Your task to perform on an android device: uninstall "ZOOM Cloud Meetings" Image 0: 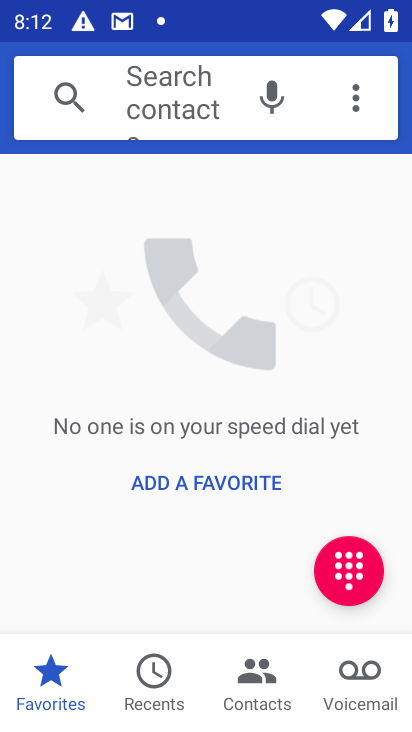
Step 0: press home button
Your task to perform on an android device: uninstall "ZOOM Cloud Meetings" Image 1: 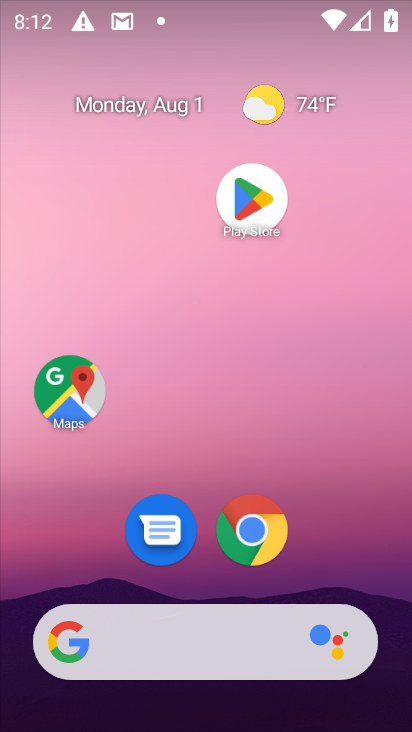
Step 1: click (242, 207)
Your task to perform on an android device: uninstall "ZOOM Cloud Meetings" Image 2: 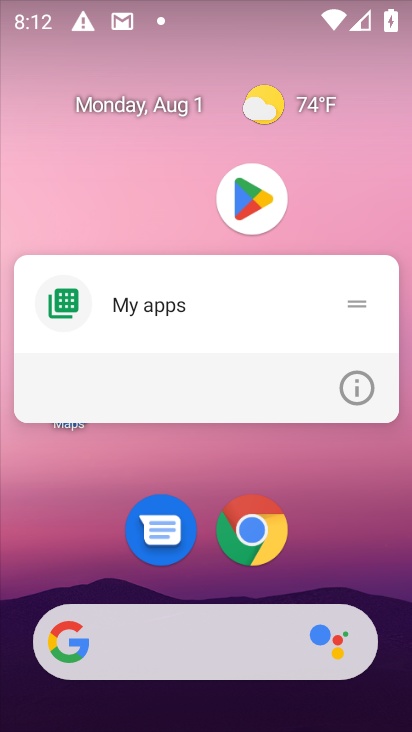
Step 2: click (242, 207)
Your task to perform on an android device: uninstall "ZOOM Cloud Meetings" Image 3: 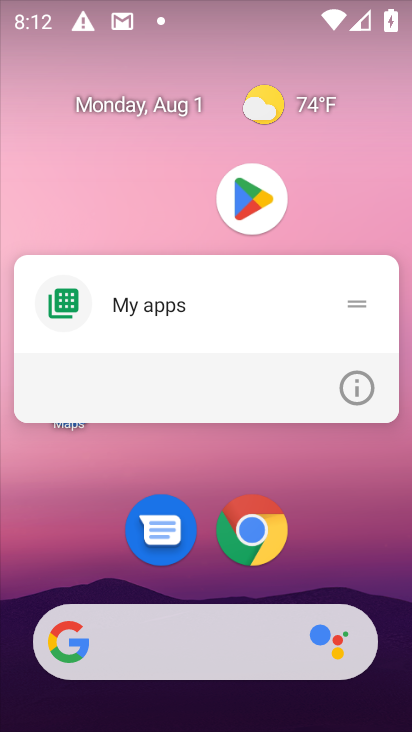
Step 3: click (242, 207)
Your task to perform on an android device: uninstall "ZOOM Cloud Meetings" Image 4: 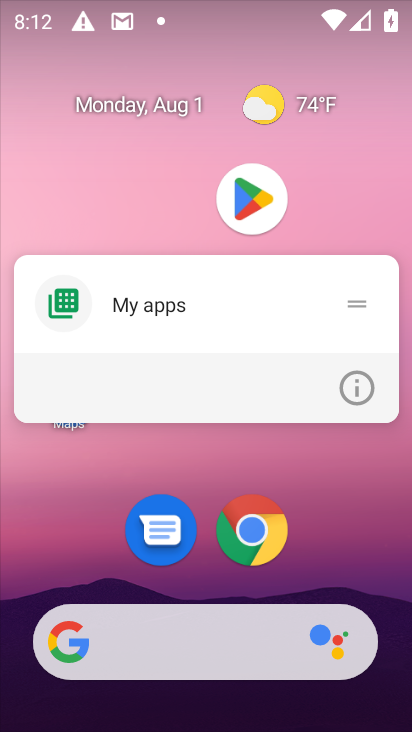
Step 4: click (248, 197)
Your task to perform on an android device: uninstall "ZOOM Cloud Meetings" Image 5: 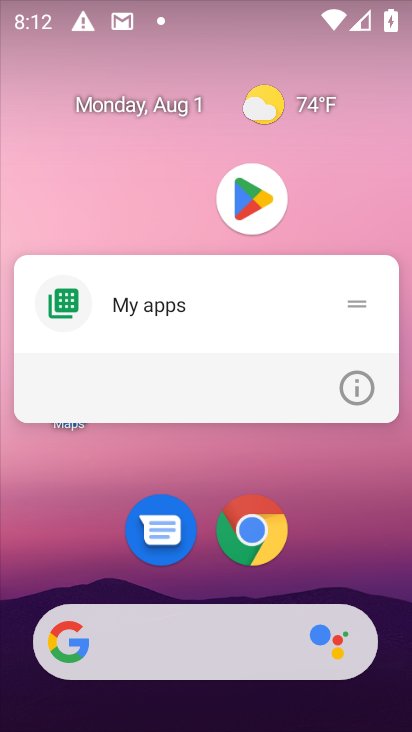
Step 5: click (248, 197)
Your task to perform on an android device: uninstall "ZOOM Cloud Meetings" Image 6: 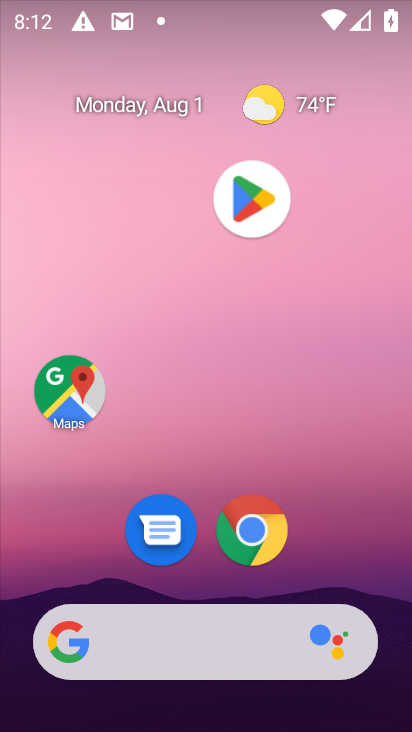
Step 6: click (250, 180)
Your task to perform on an android device: uninstall "ZOOM Cloud Meetings" Image 7: 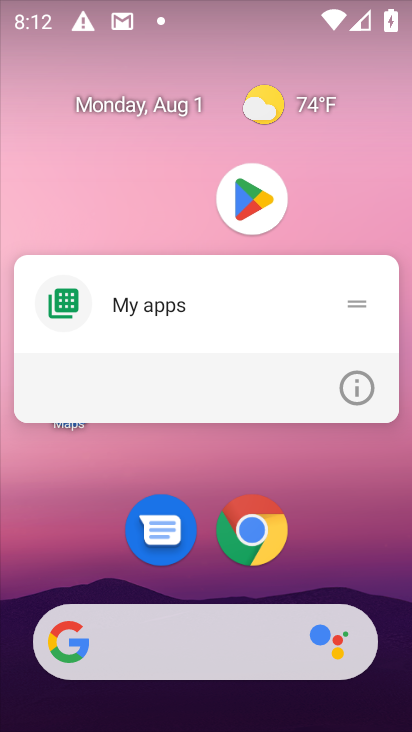
Step 7: click (236, 159)
Your task to perform on an android device: uninstall "ZOOM Cloud Meetings" Image 8: 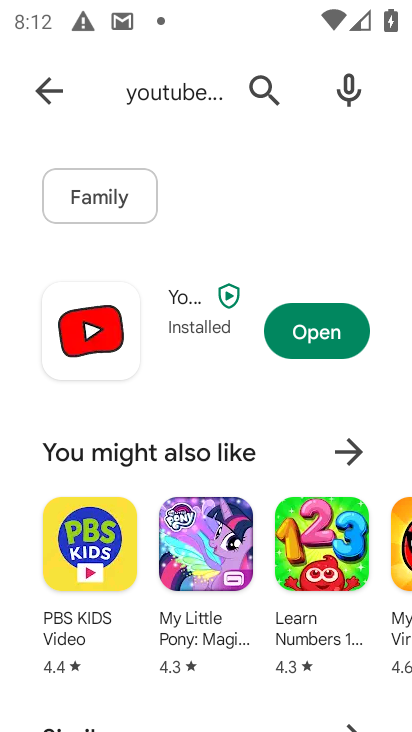
Step 8: click (266, 102)
Your task to perform on an android device: uninstall "ZOOM Cloud Meetings" Image 9: 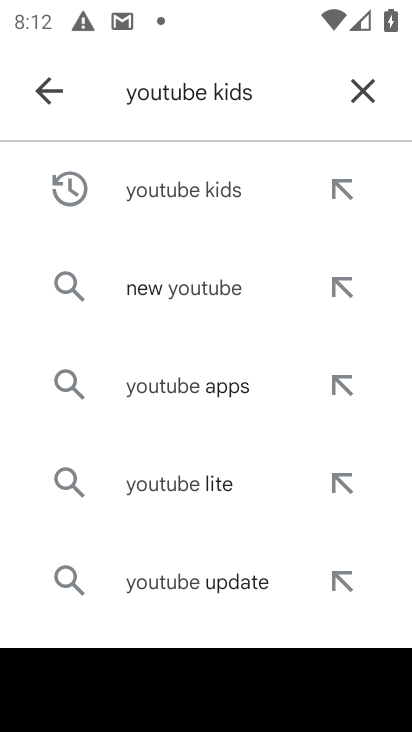
Step 9: click (365, 95)
Your task to perform on an android device: uninstall "ZOOM Cloud Meetings" Image 10: 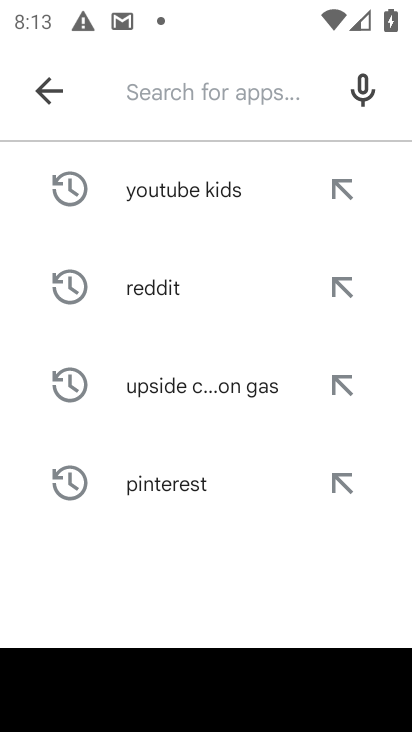
Step 10: type "zoom cloud meetings "
Your task to perform on an android device: uninstall "ZOOM Cloud Meetings" Image 11: 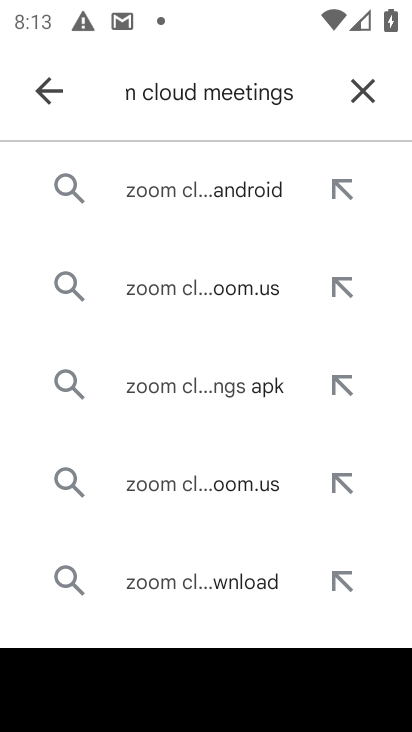
Step 11: type ""
Your task to perform on an android device: uninstall "ZOOM Cloud Meetings" Image 12: 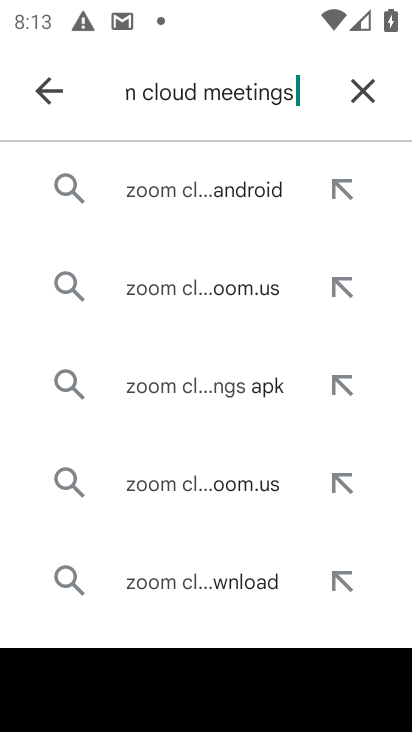
Step 12: type ""
Your task to perform on an android device: uninstall "ZOOM Cloud Meetings" Image 13: 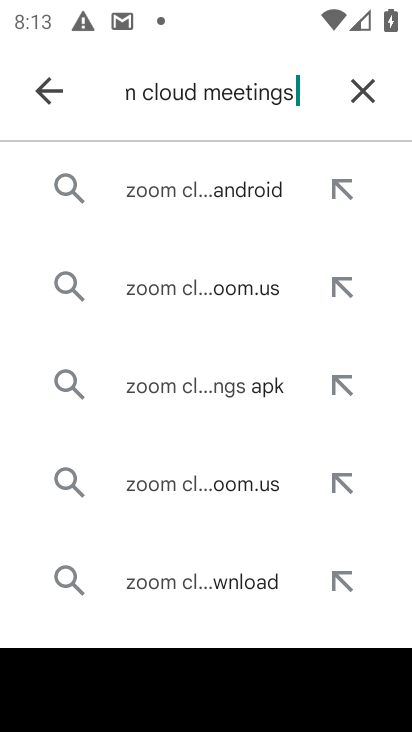
Step 13: press enter
Your task to perform on an android device: uninstall "ZOOM Cloud Meetings" Image 14: 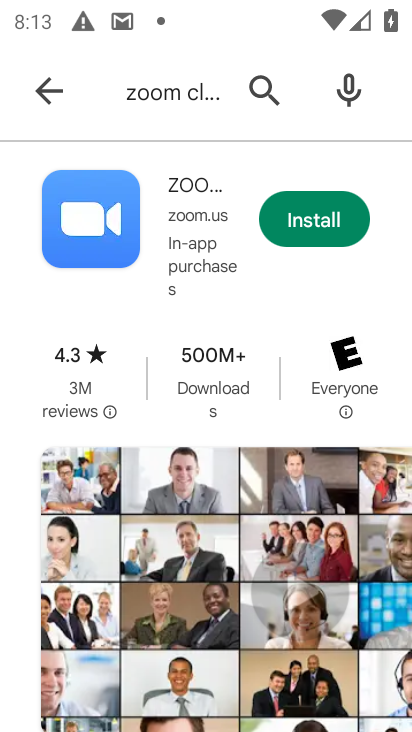
Step 14: task complete